Your task to perform on an android device: Open Yahoo.com Image 0: 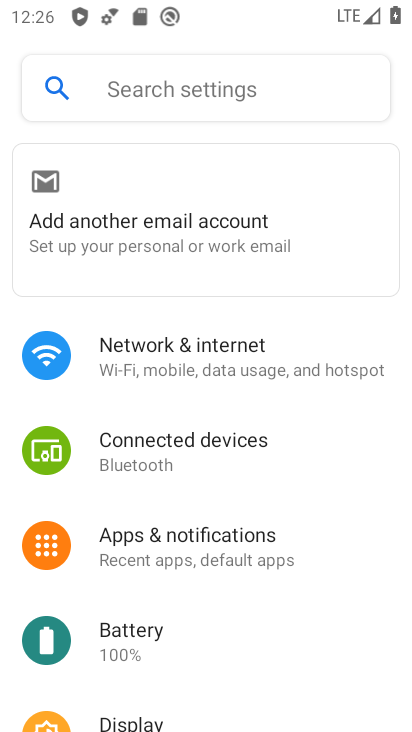
Step 0: press home button
Your task to perform on an android device: Open Yahoo.com Image 1: 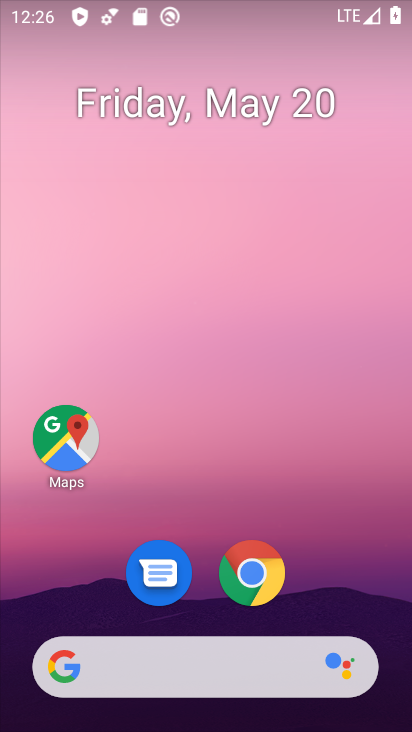
Step 1: click (265, 573)
Your task to perform on an android device: Open Yahoo.com Image 2: 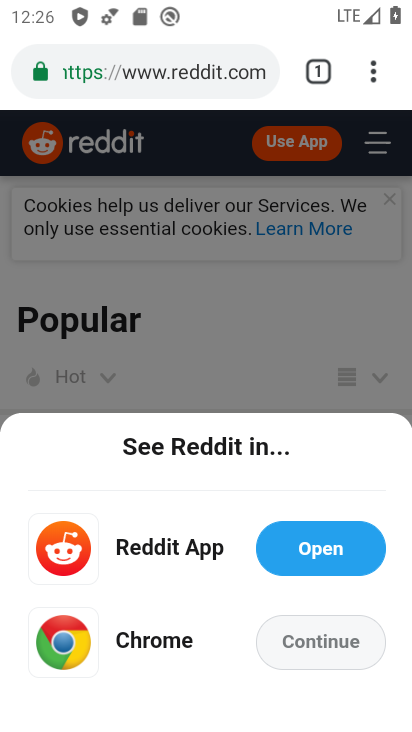
Step 2: click (219, 81)
Your task to perform on an android device: Open Yahoo.com Image 3: 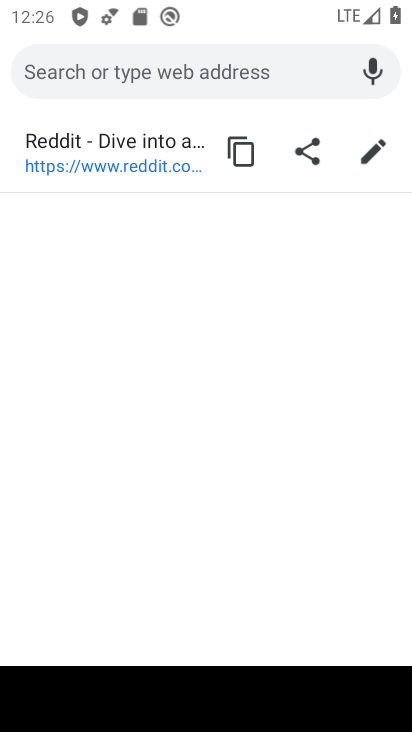
Step 3: type "Yahoo.com"
Your task to perform on an android device: Open Yahoo.com Image 4: 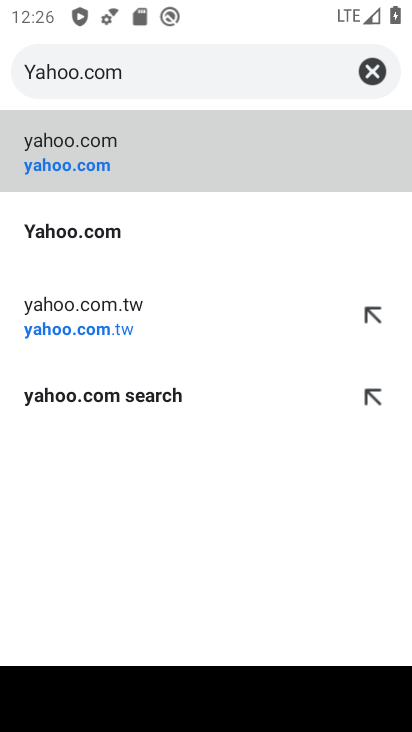
Step 4: click (116, 157)
Your task to perform on an android device: Open Yahoo.com Image 5: 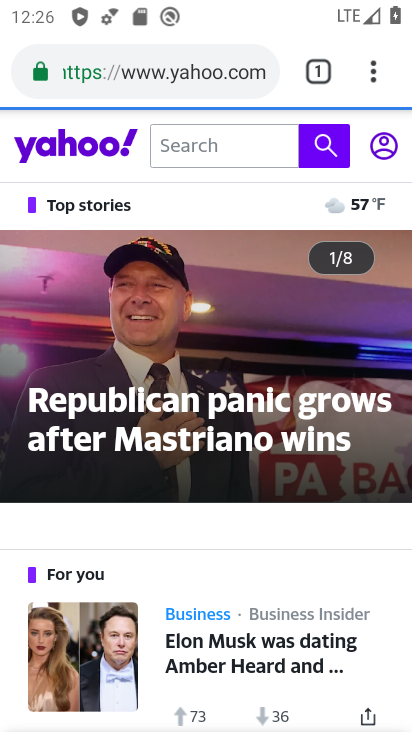
Step 5: task complete